Your task to perform on an android device: How do I get to the nearest Macy's? Image 0: 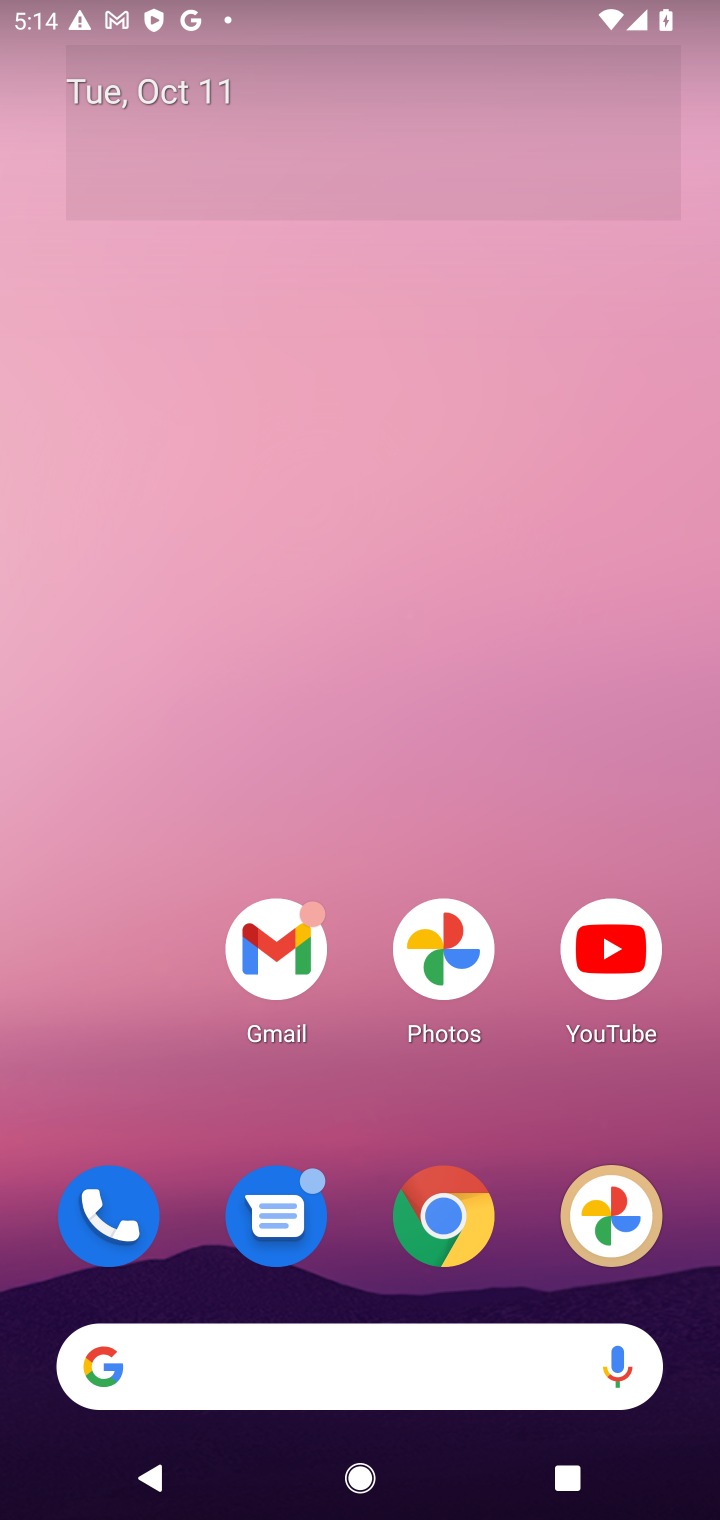
Step 0: click (464, 1240)
Your task to perform on an android device: How do I get to the nearest Macy's? Image 1: 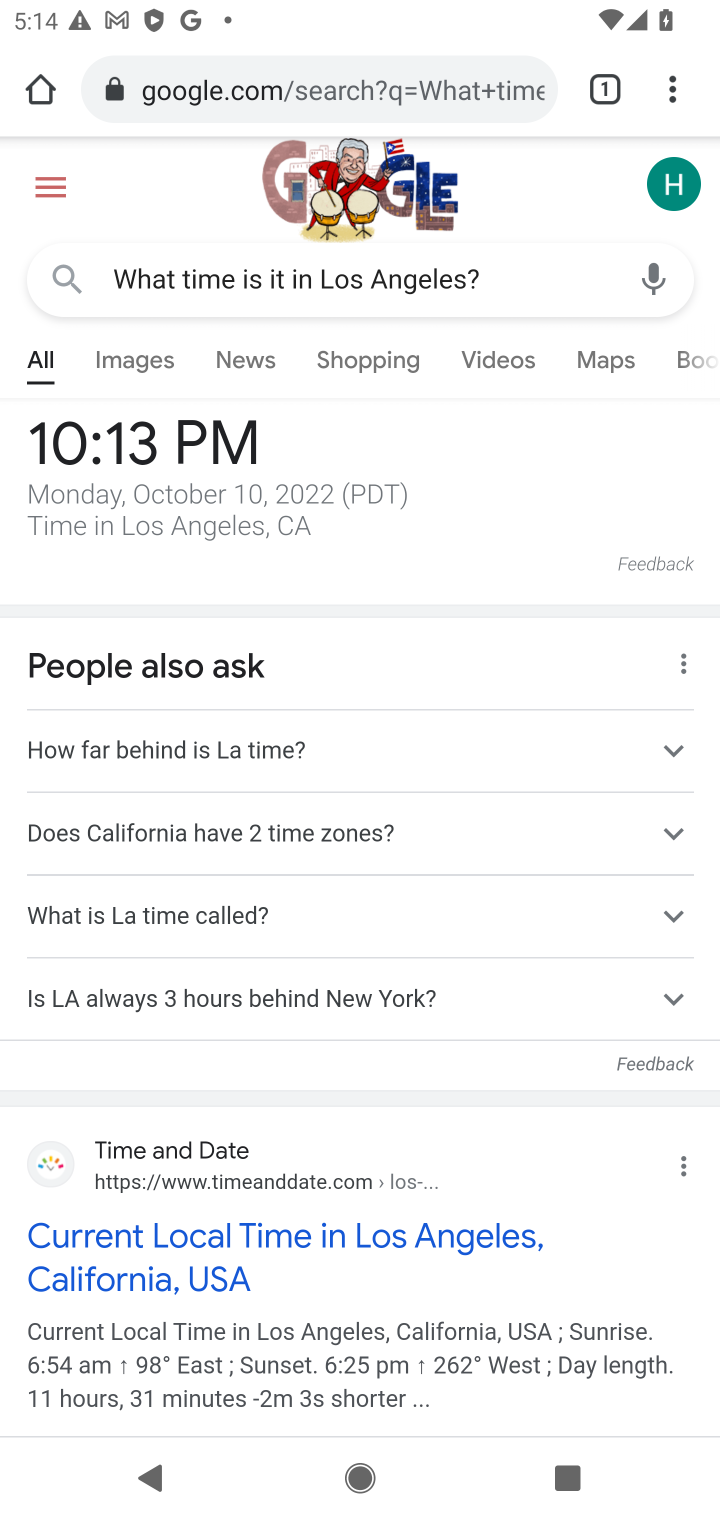
Step 1: click (488, 282)
Your task to perform on an android device: How do I get to the nearest Macy's? Image 2: 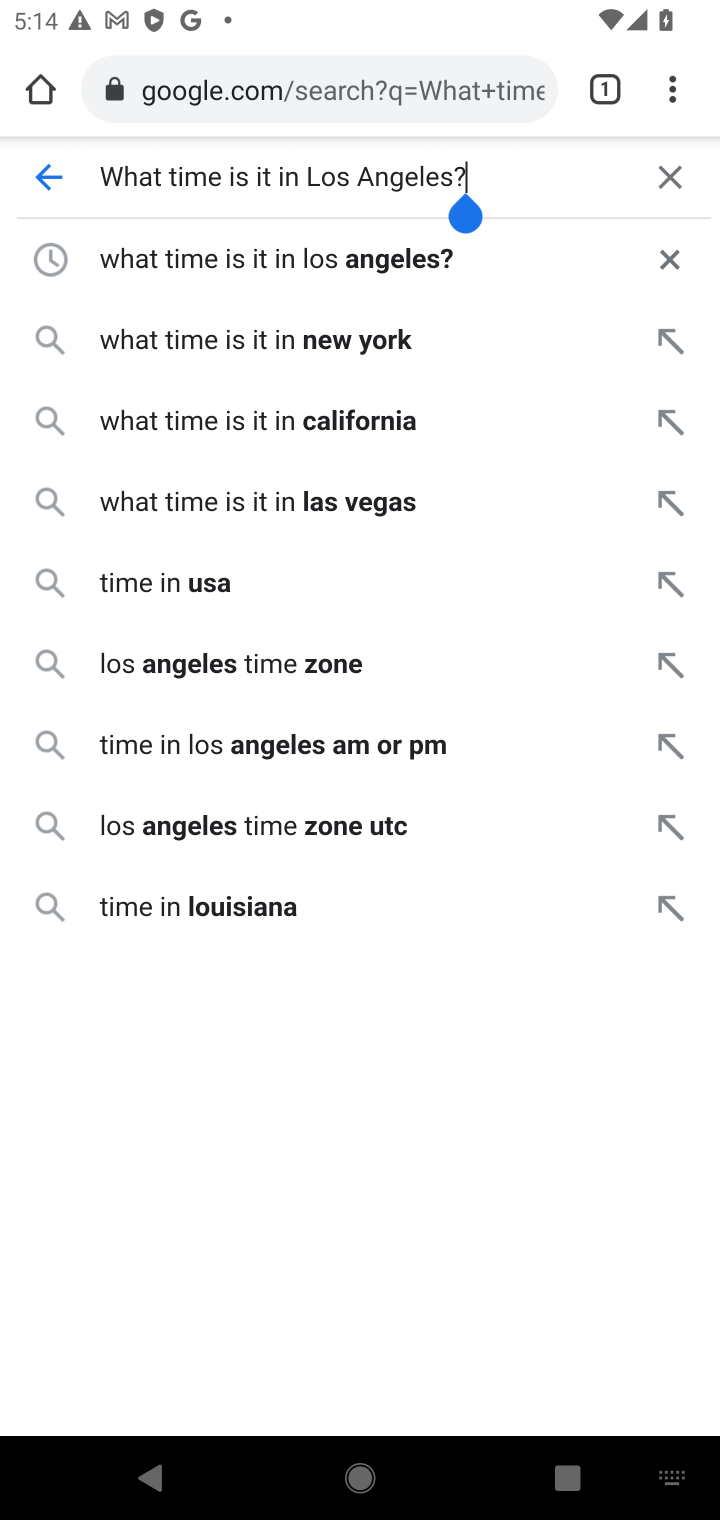
Step 2: click (656, 188)
Your task to perform on an android device: How do I get to the nearest Macy's? Image 3: 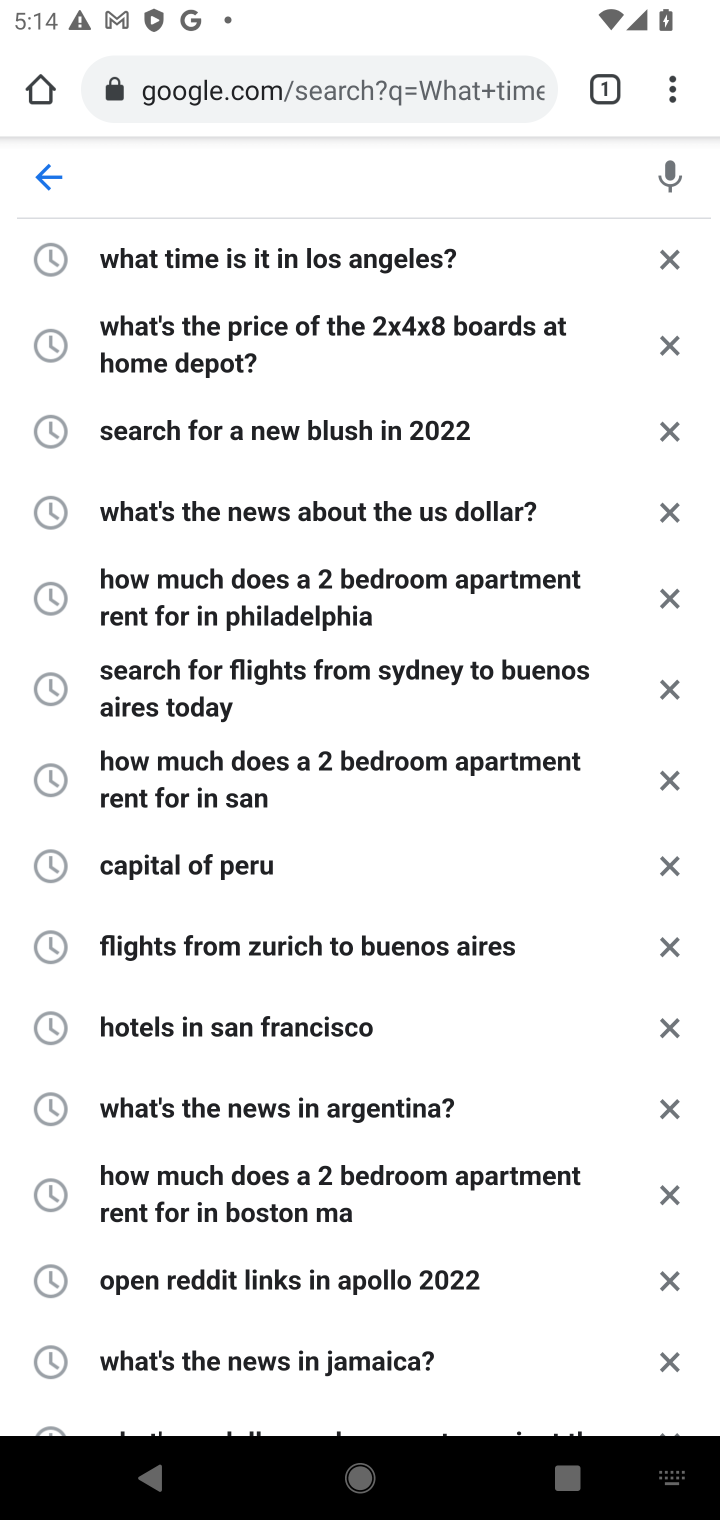
Step 3: type "How do I get to the nearest Macy's?"
Your task to perform on an android device: How do I get to the nearest Macy's? Image 4: 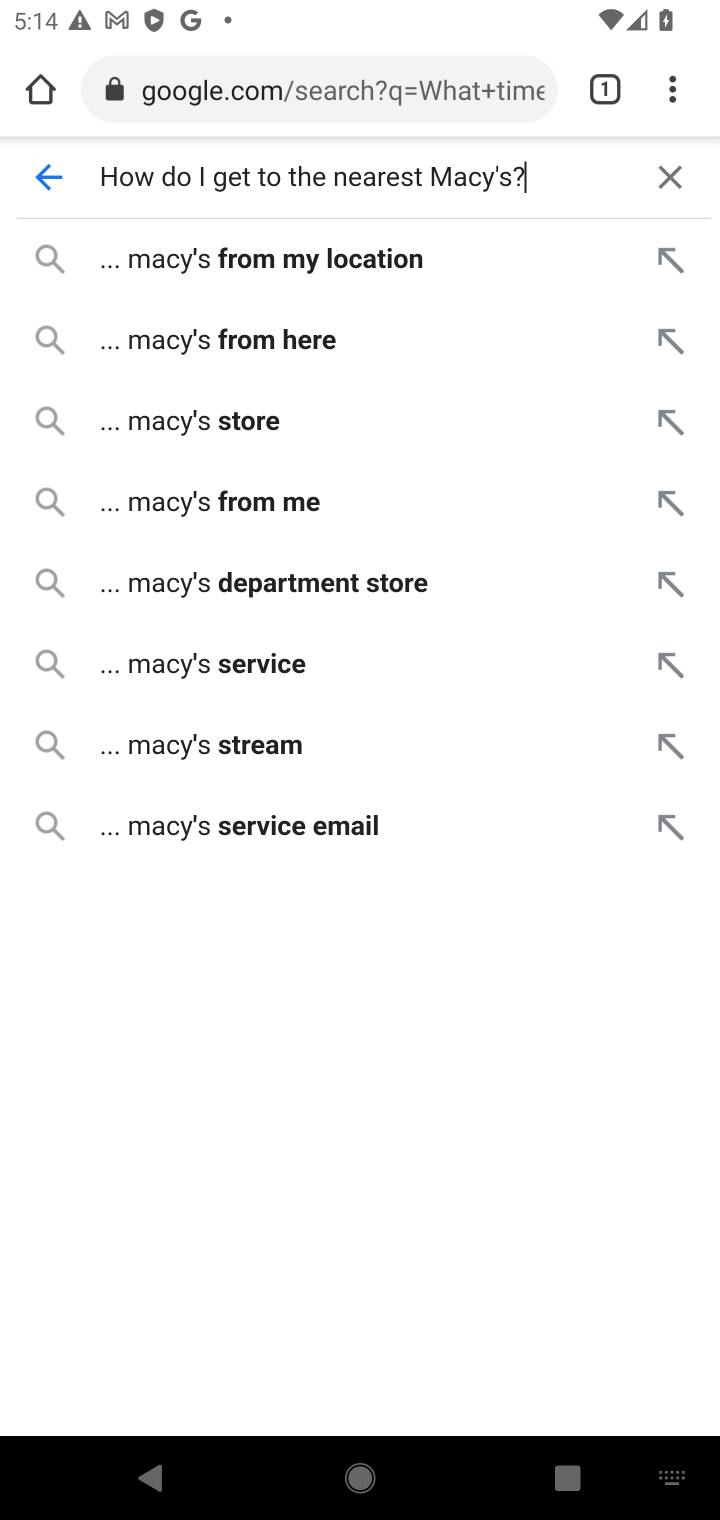
Step 4: press enter
Your task to perform on an android device: How do I get to the nearest Macy's? Image 5: 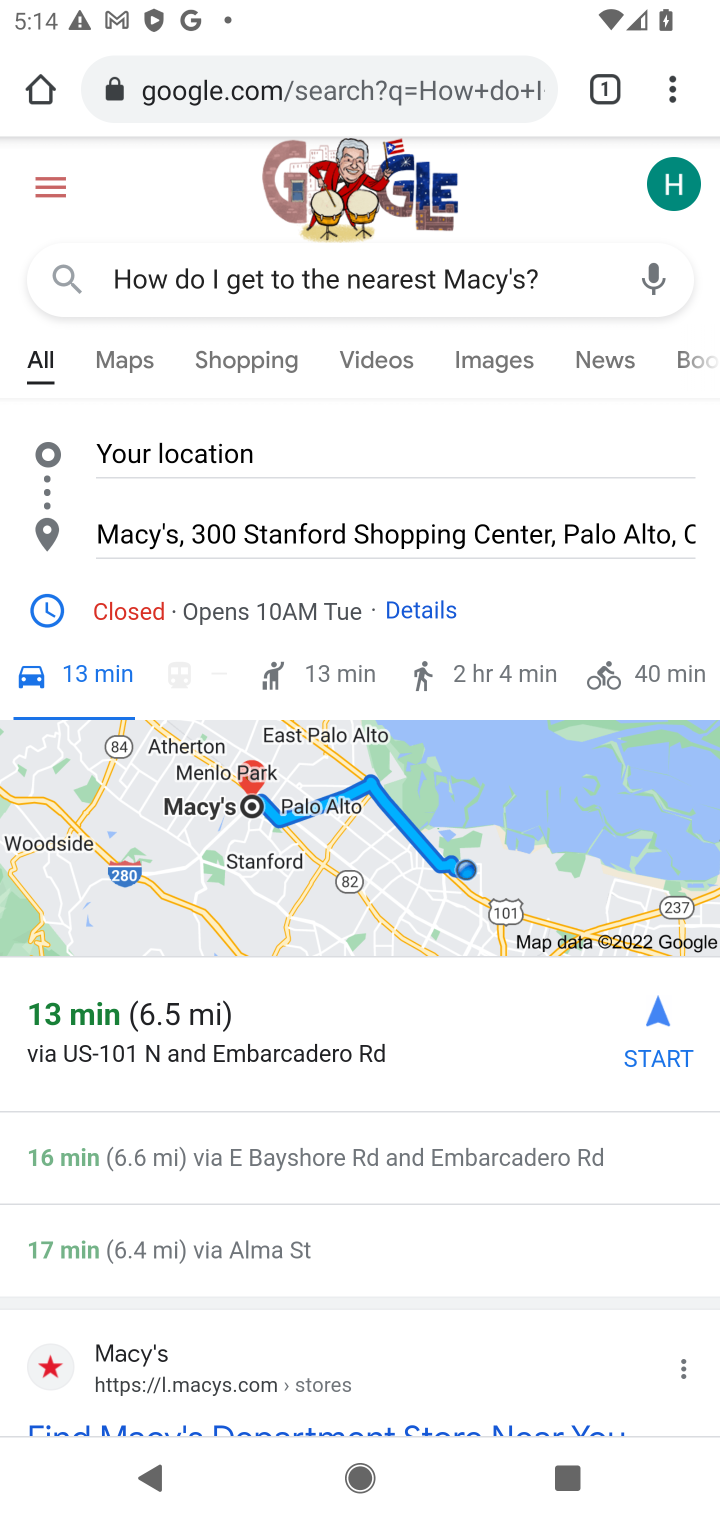
Step 5: press enter
Your task to perform on an android device: How do I get to the nearest Macy's? Image 6: 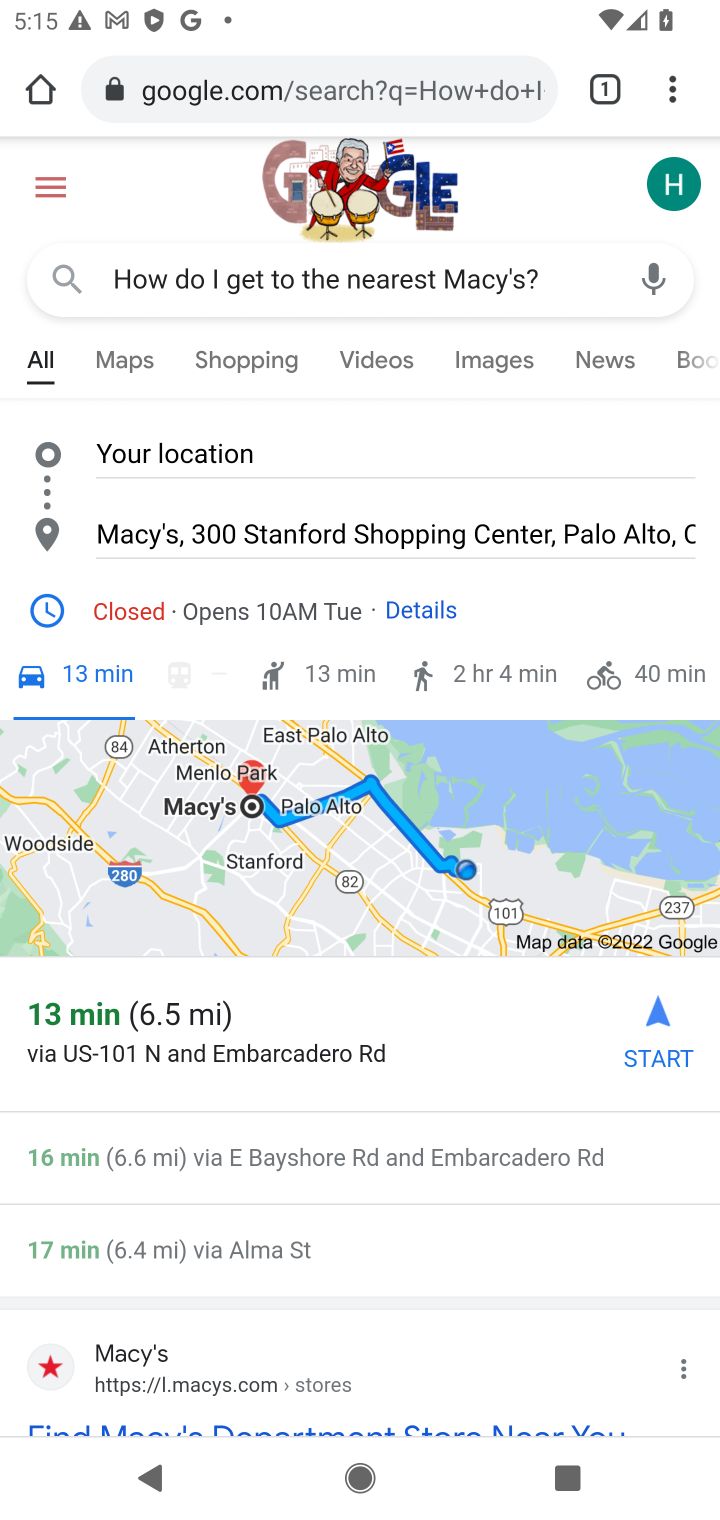
Step 6: task complete